Your task to perform on an android device: star an email in the gmail app Image 0: 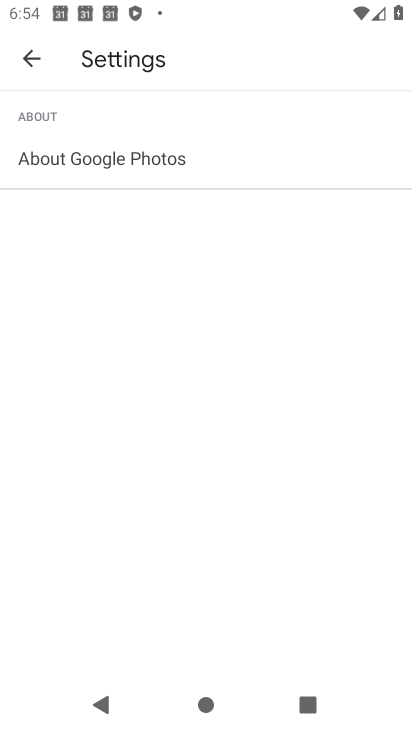
Step 0: press home button
Your task to perform on an android device: star an email in the gmail app Image 1: 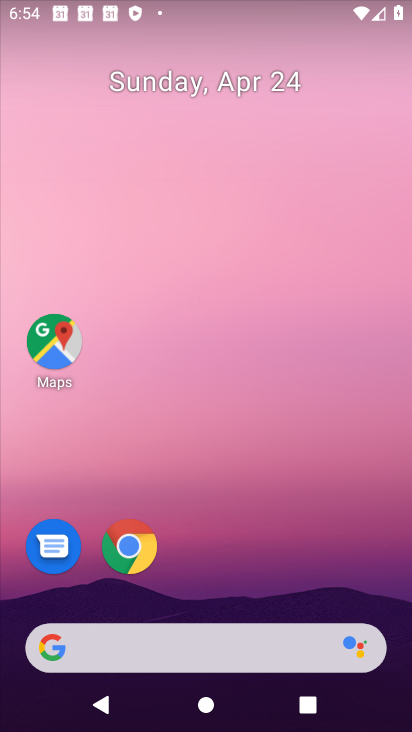
Step 1: drag from (227, 489) to (265, 11)
Your task to perform on an android device: star an email in the gmail app Image 2: 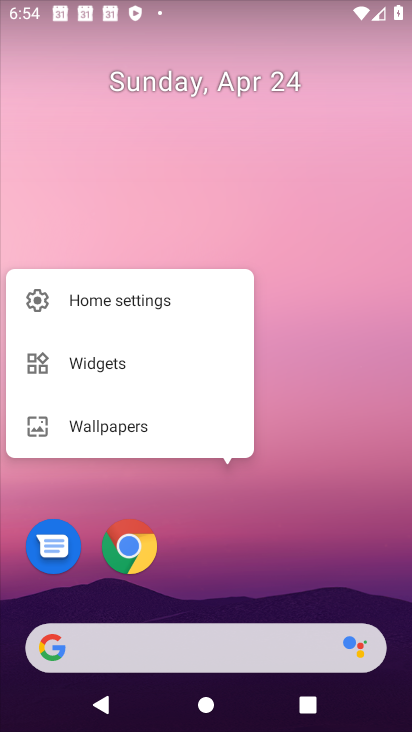
Step 2: click (245, 605)
Your task to perform on an android device: star an email in the gmail app Image 3: 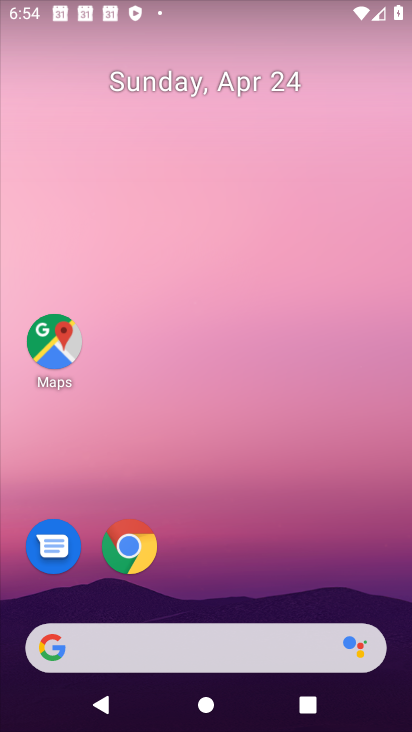
Step 3: drag from (248, 591) to (256, 249)
Your task to perform on an android device: star an email in the gmail app Image 4: 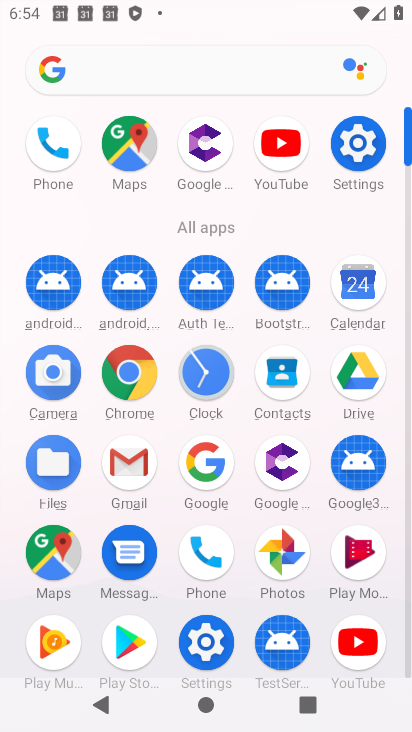
Step 4: click (123, 465)
Your task to perform on an android device: star an email in the gmail app Image 5: 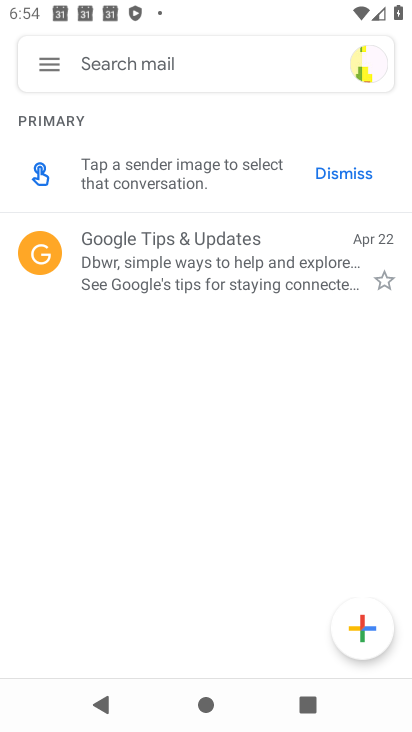
Step 5: click (381, 282)
Your task to perform on an android device: star an email in the gmail app Image 6: 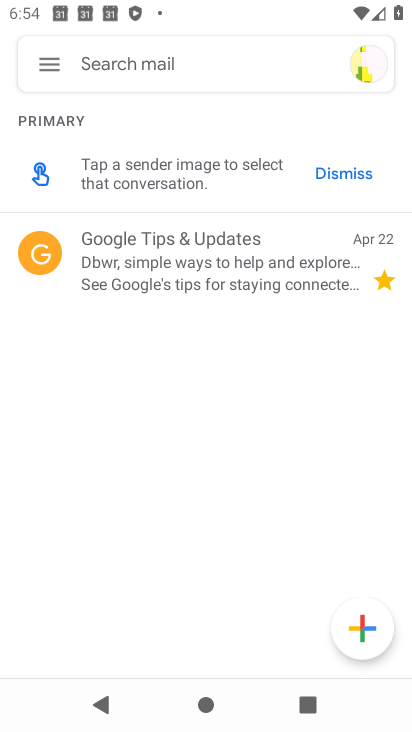
Step 6: task complete